Your task to perform on an android device: Add jbl charge 4 to the cart on bestbuy Image 0: 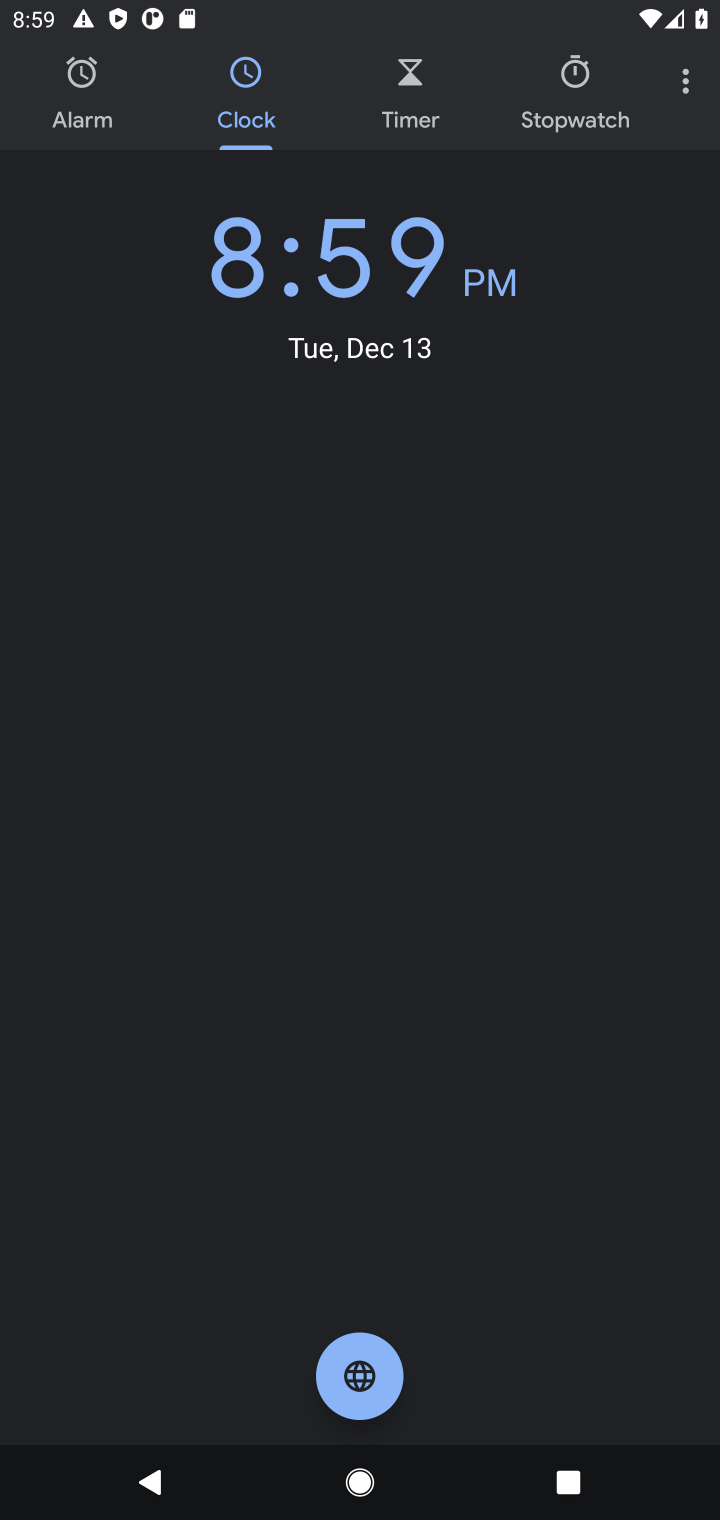
Step 0: press home button
Your task to perform on an android device: Add jbl charge 4 to the cart on bestbuy Image 1: 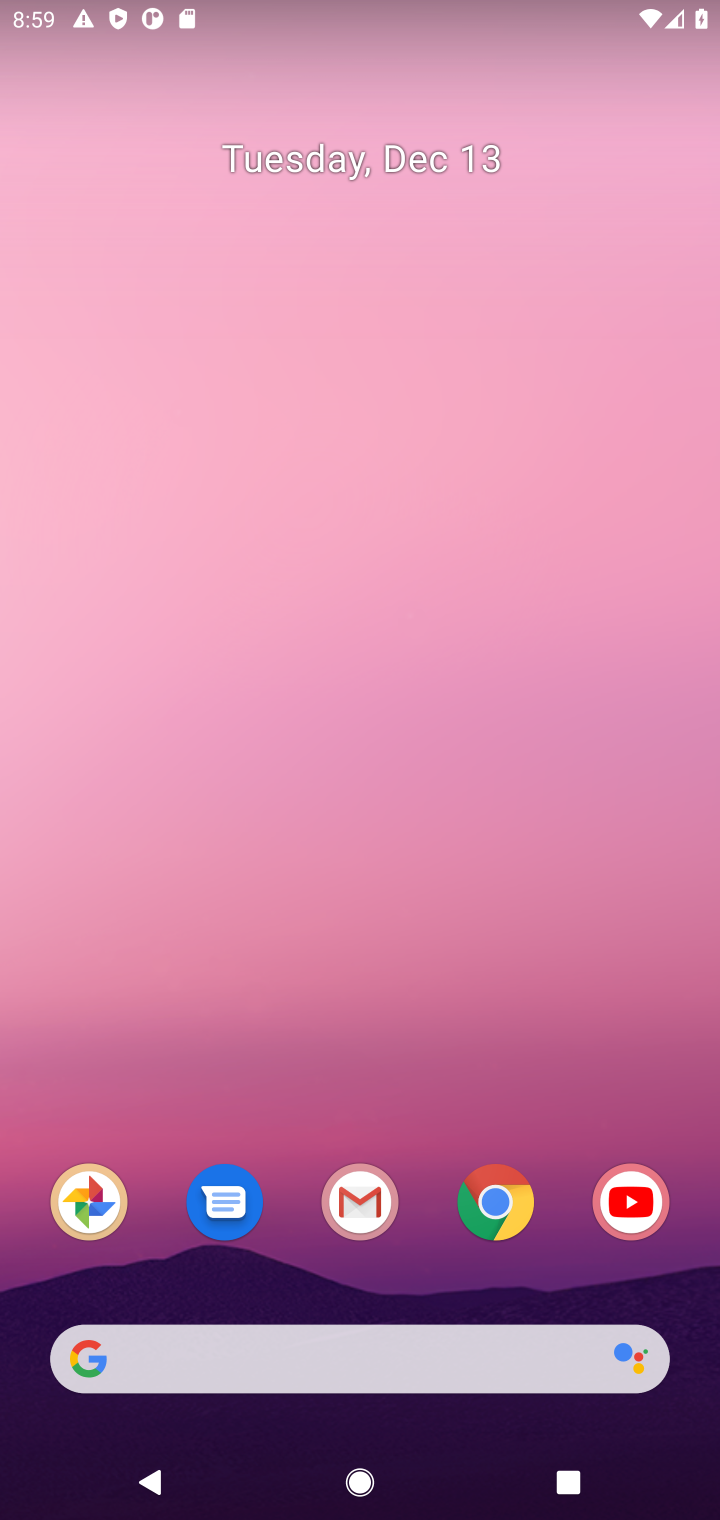
Step 1: click (494, 1196)
Your task to perform on an android device: Add jbl charge 4 to the cart on bestbuy Image 2: 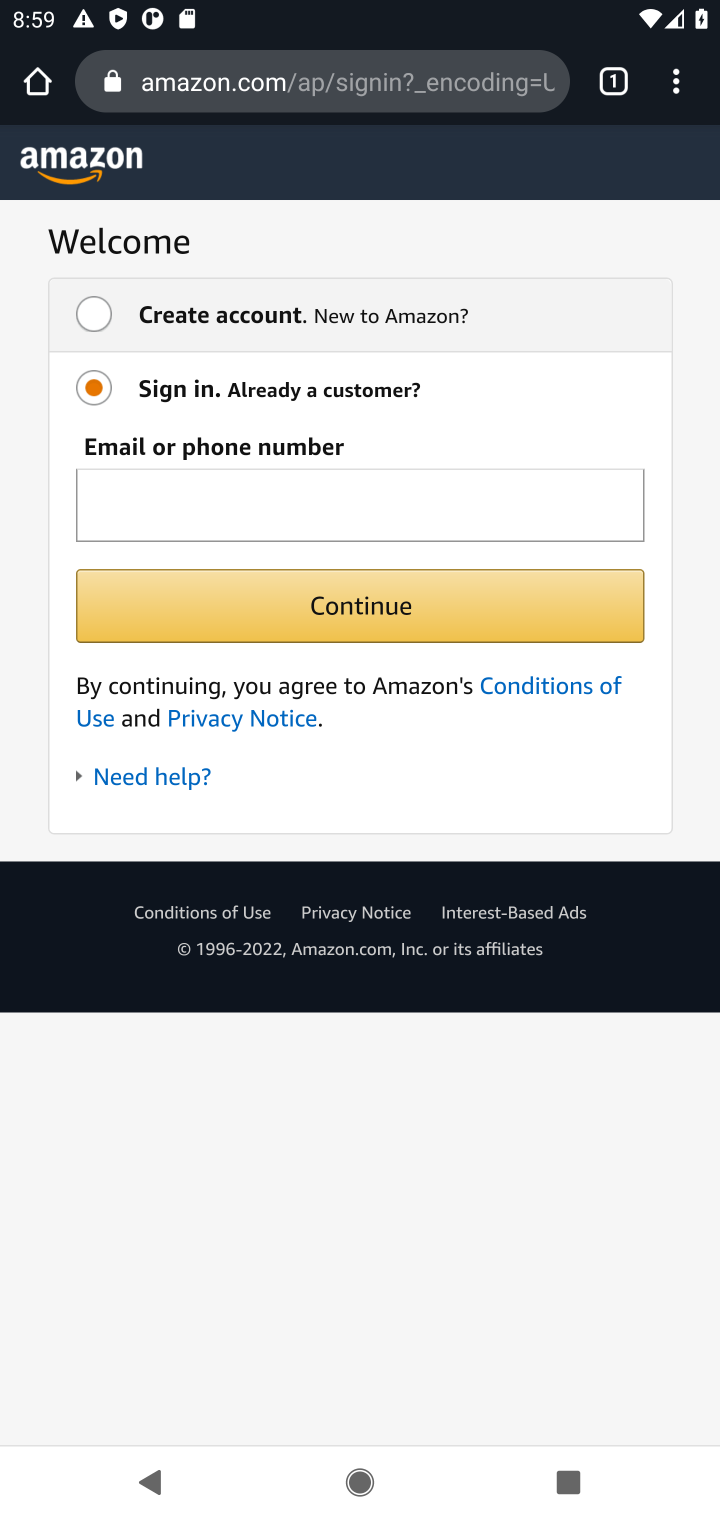
Step 2: click (275, 83)
Your task to perform on an android device: Add jbl charge 4 to the cart on bestbuy Image 3: 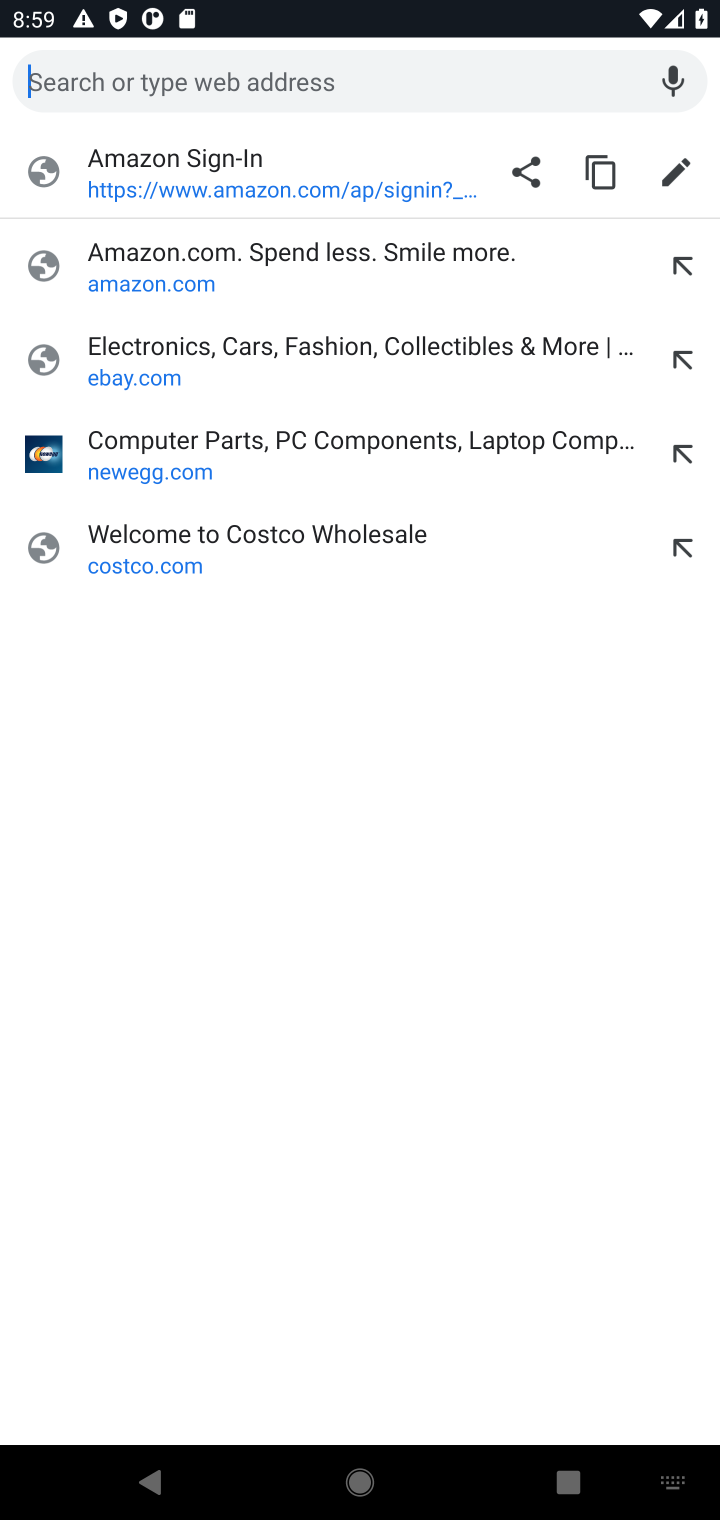
Step 3: type "bestbuy.com"
Your task to perform on an android device: Add jbl charge 4 to the cart on bestbuy Image 4: 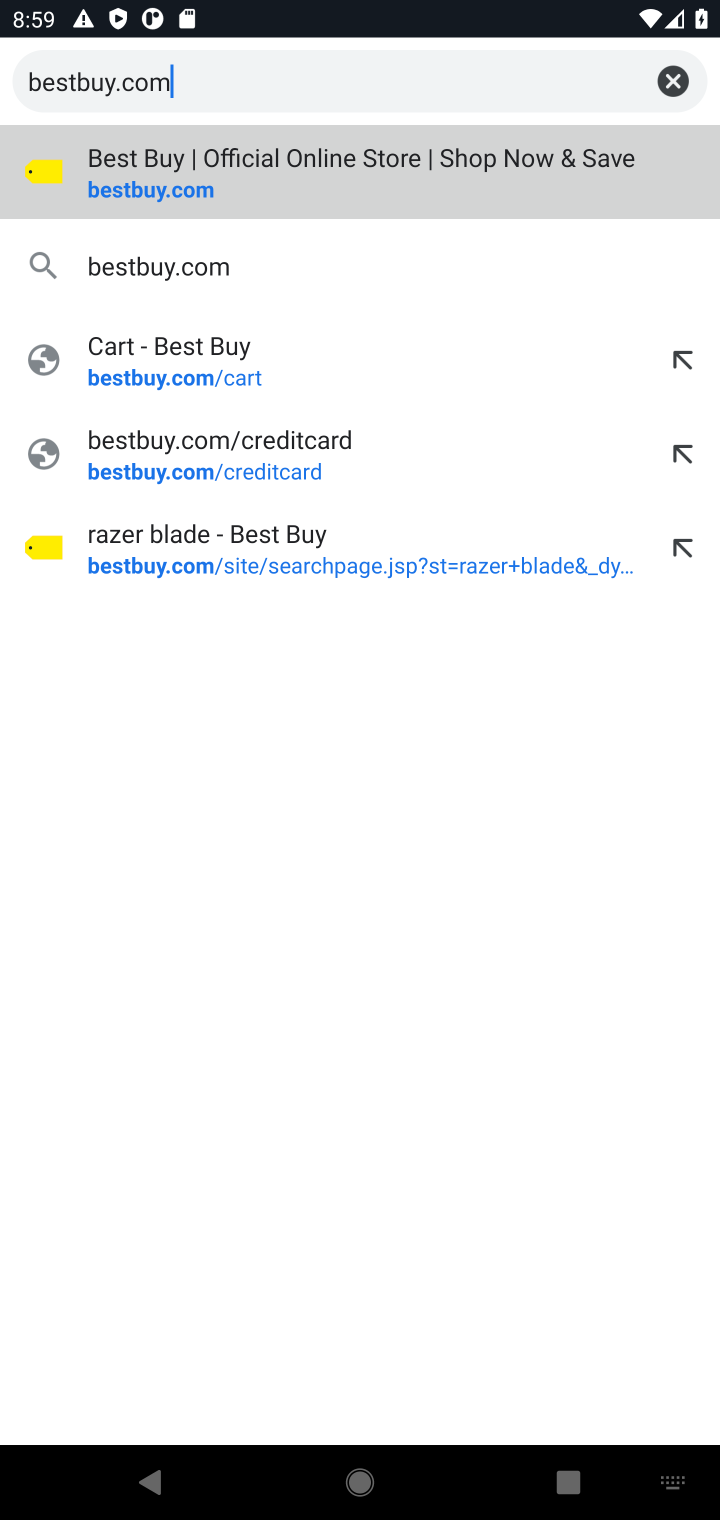
Step 4: click (144, 177)
Your task to perform on an android device: Add jbl charge 4 to the cart on bestbuy Image 5: 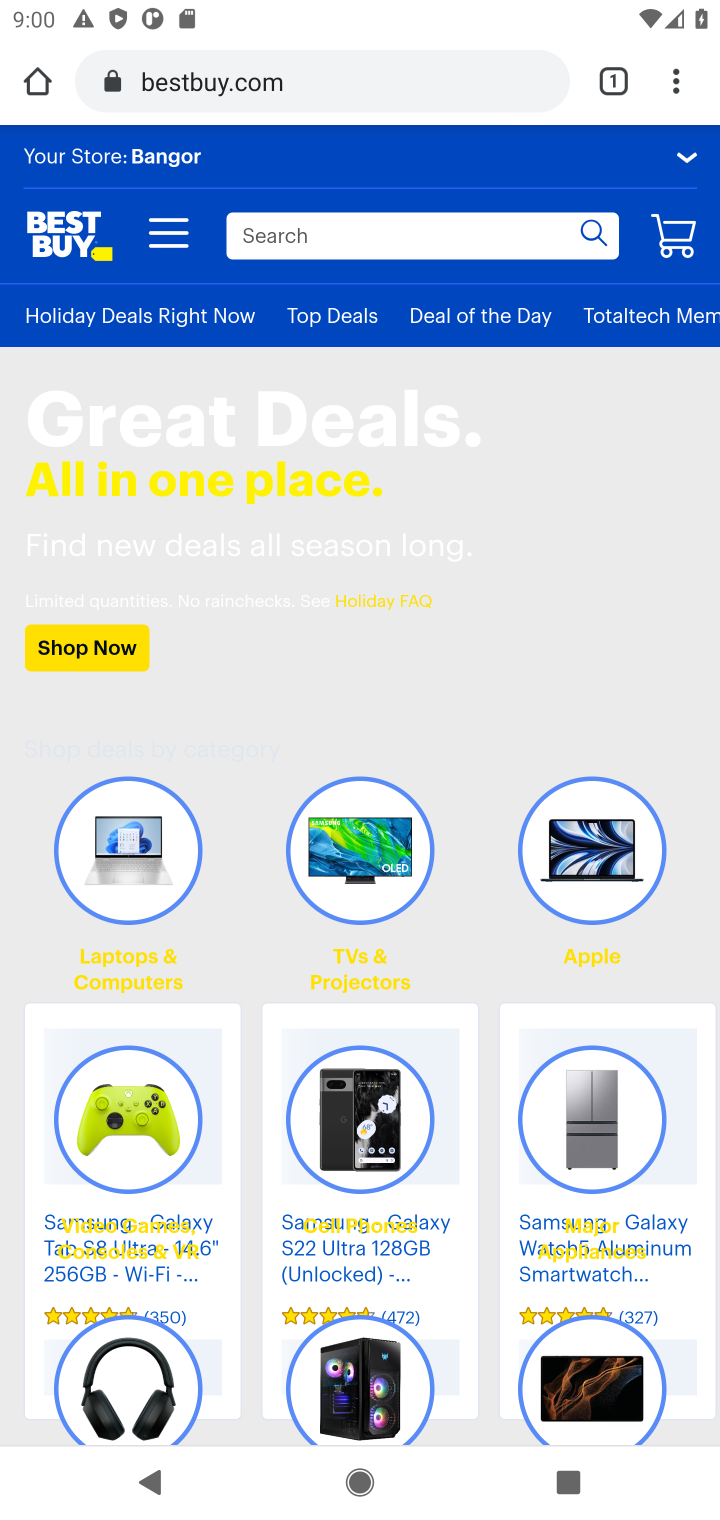
Step 5: click (328, 237)
Your task to perform on an android device: Add jbl charge 4 to the cart on bestbuy Image 6: 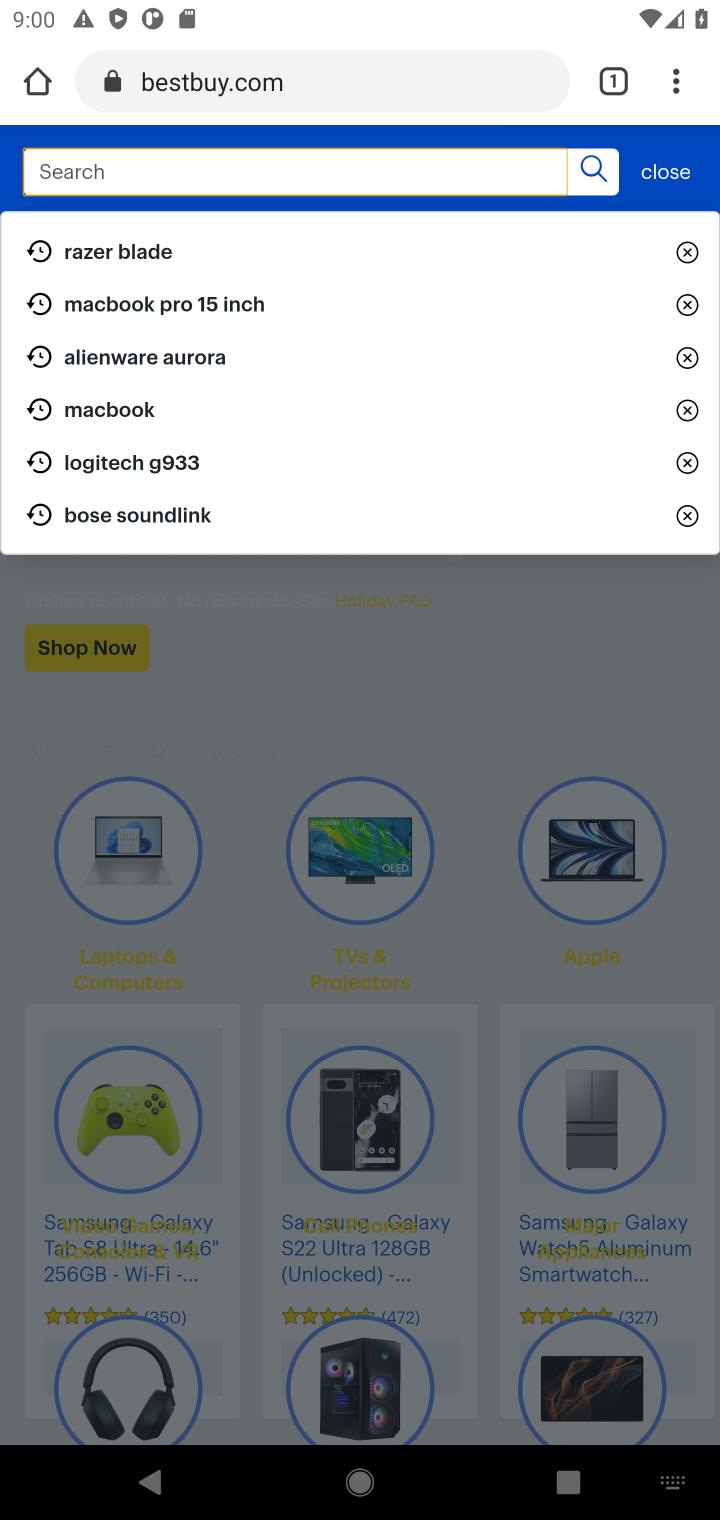
Step 6: type "jbl charge 4 "
Your task to perform on an android device: Add jbl charge 4 to the cart on bestbuy Image 7: 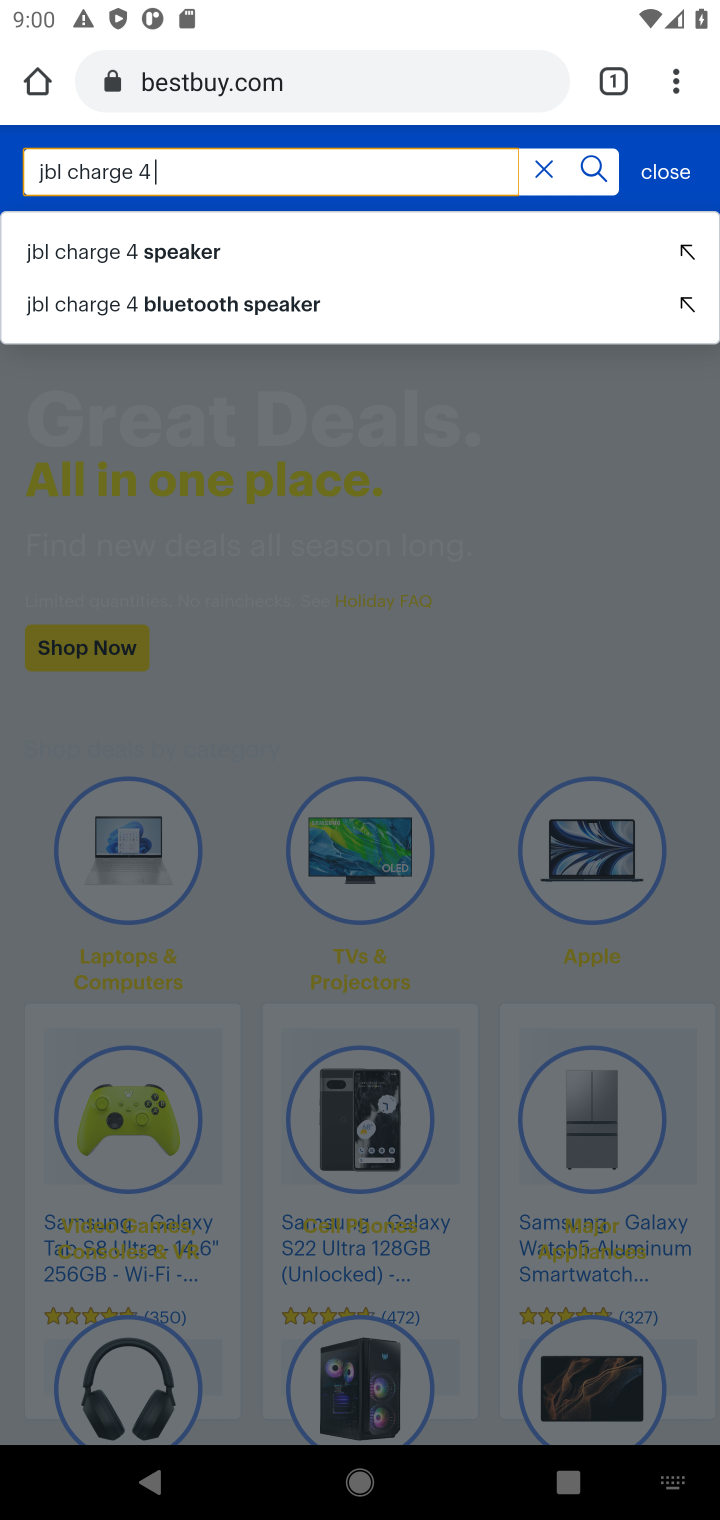
Step 7: click (595, 167)
Your task to perform on an android device: Add jbl charge 4 to the cart on bestbuy Image 8: 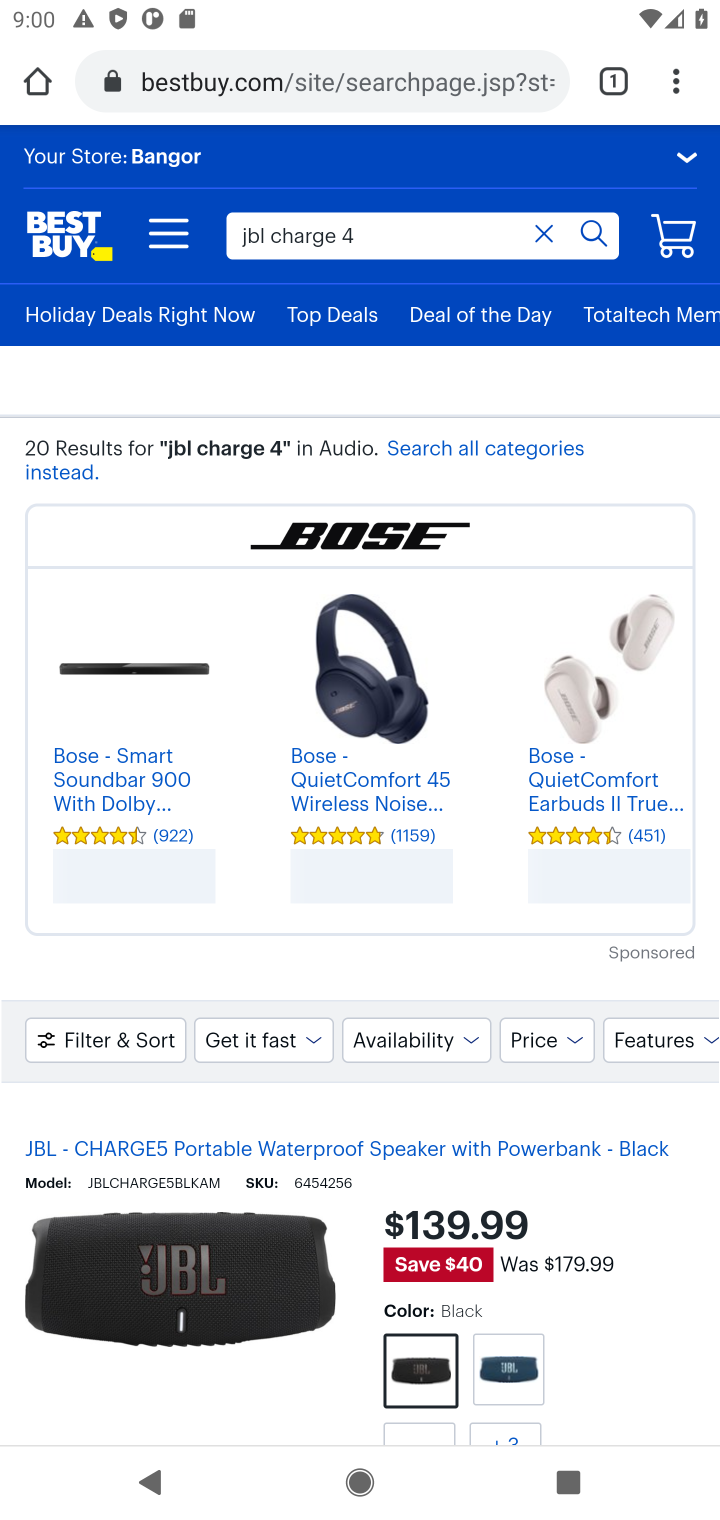
Step 8: task complete